Your task to perform on an android device: toggle data saver in the chrome app Image 0: 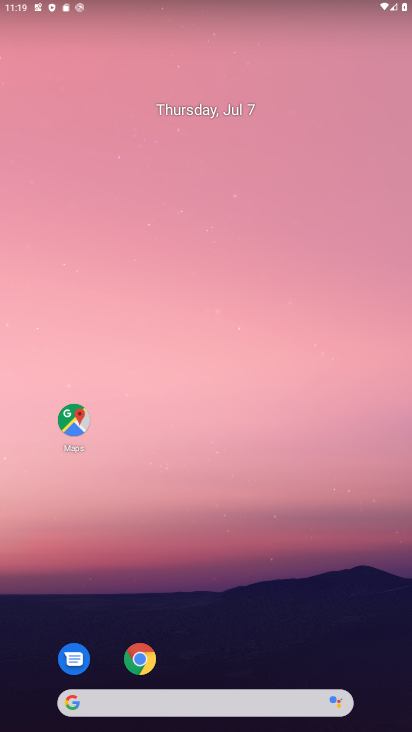
Step 0: click (124, 653)
Your task to perform on an android device: toggle data saver in the chrome app Image 1: 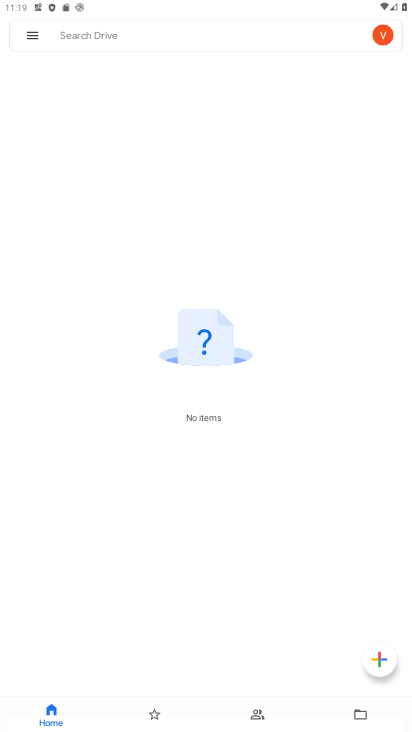
Step 1: press home button
Your task to perform on an android device: toggle data saver in the chrome app Image 2: 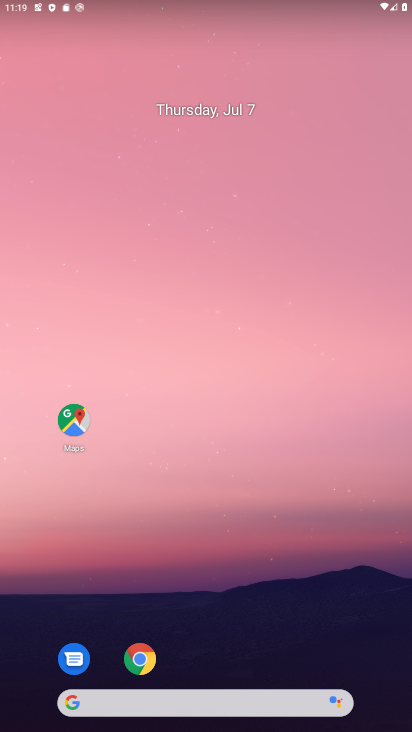
Step 2: click (145, 655)
Your task to perform on an android device: toggle data saver in the chrome app Image 3: 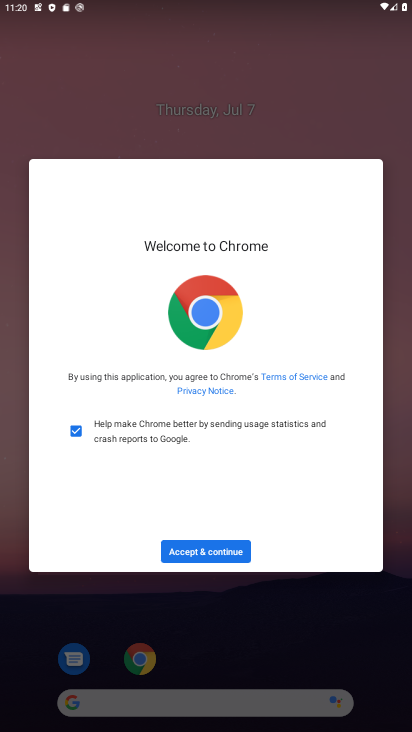
Step 3: click (173, 560)
Your task to perform on an android device: toggle data saver in the chrome app Image 4: 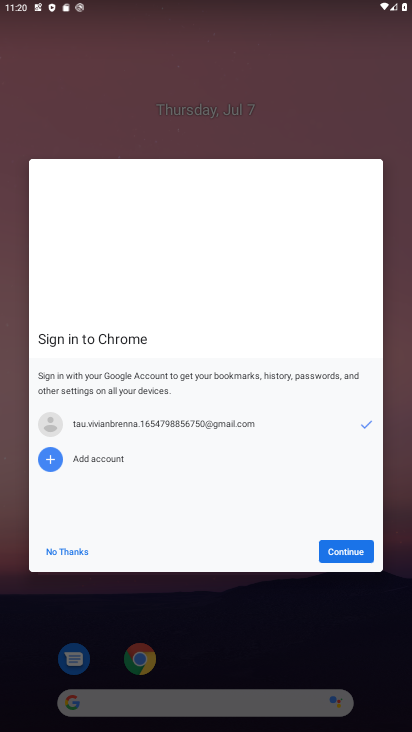
Step 4: click (358, 552)
Your task to perform on an android device: toggle data saver in the chrome app Image 5: 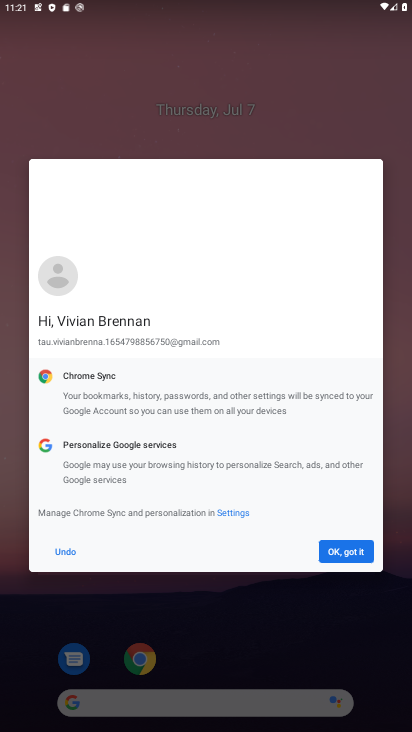
Step 5: click (342, 556)
Your task to perform on an android device: toggle data saver in the chrome app Image 6: 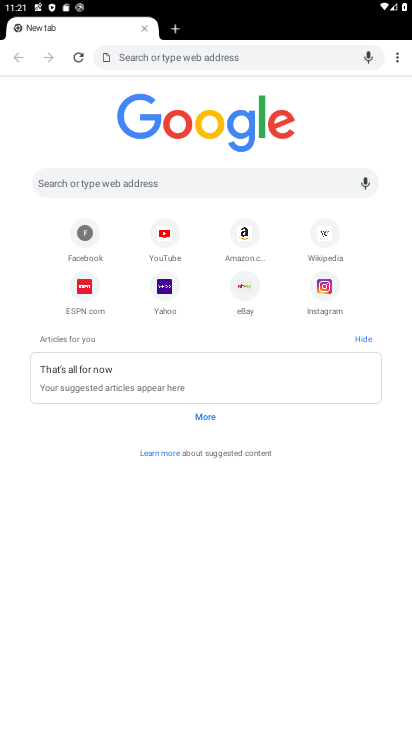
Step 6: click (403, 64)
Your task to perform on an android device: toggle data saver in the chrome app Image 7: 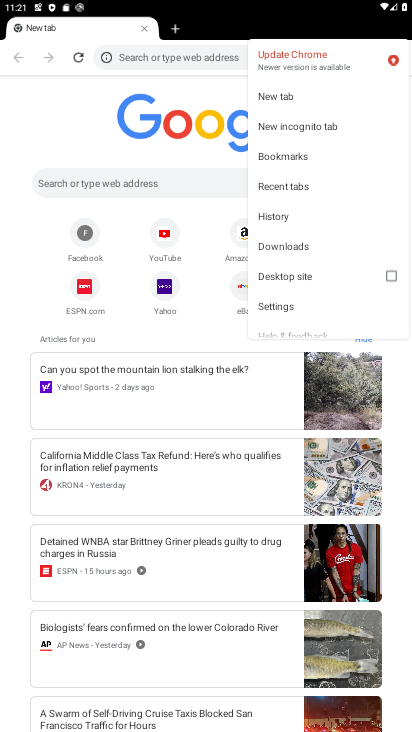
Step 7: click (287, 304)
Your task to perform on an android device: toggle data saver in the chrome app Image 8: 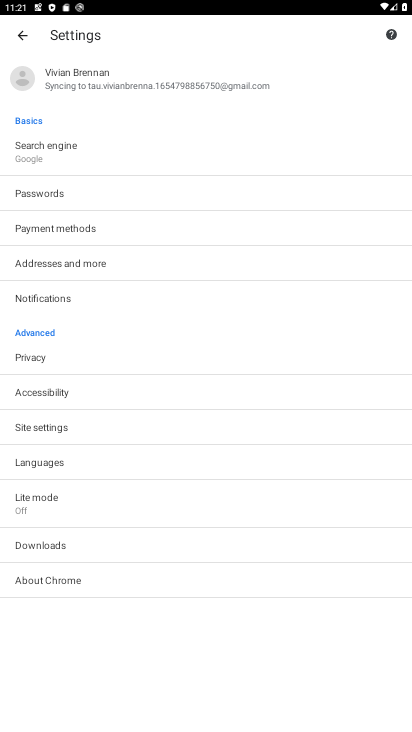
Step 8: click (86, 510)
Your task to perform on an android device: toggle data saver in the chrome app Image 9: 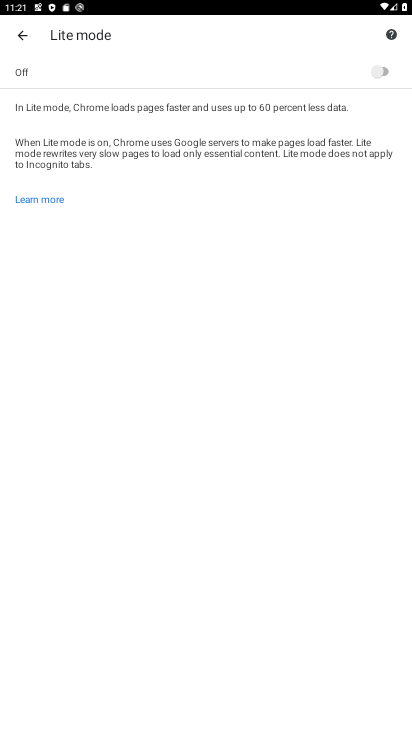
Step 9: click (390, 71)
Your task to perform on an android device: toggle data saver in the chrome app Image 10: 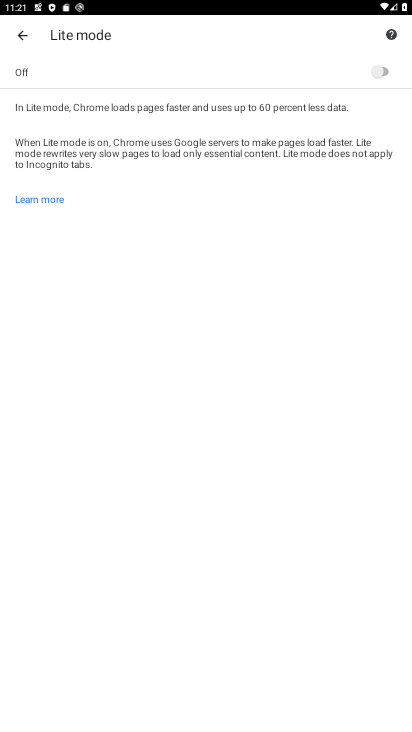
Step 10: click (390, 71)
Your task to perform on an android device: toggle data saver in the chrome app Image 11: 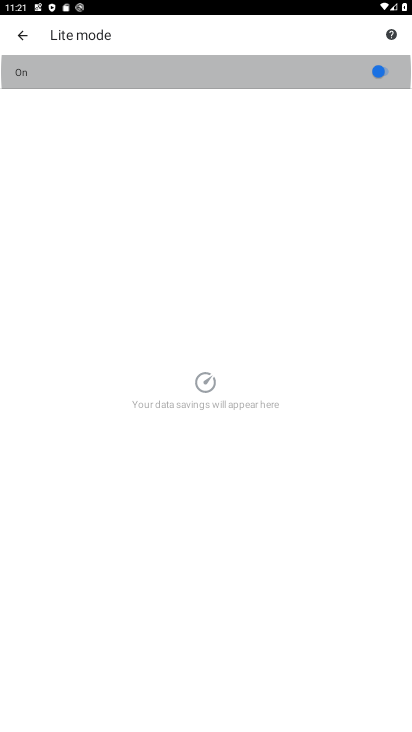
Step 11: click (390, 71)
Your task to perform on an android device: toggle data saver in the chrome app Image 12: 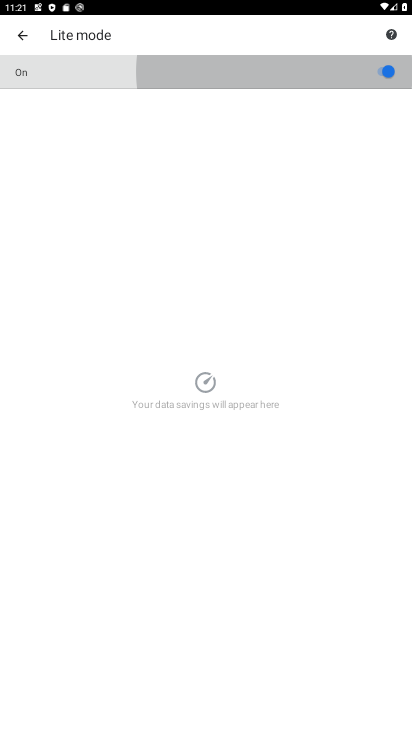
Step 12: click (390, 71)
Your task to perform on an android device: toggle data saver in the chrome app Image 13: 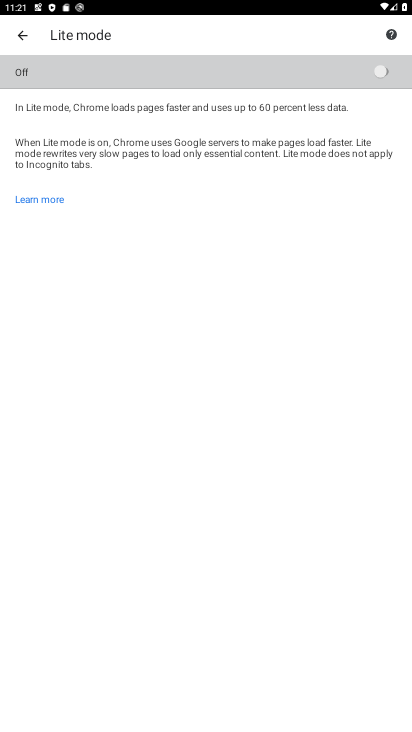
Step 13: click (390, 71)
Your task to perform on an android device: toggle data saver in the chrome app Image 14: 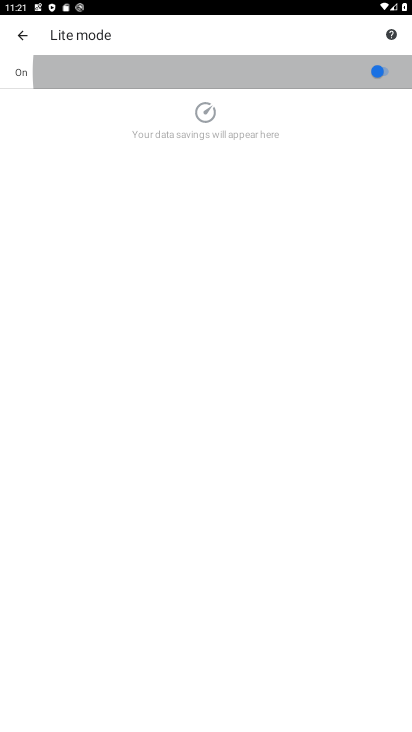
Step 14: click (390, 71)
Your task to perform on an android device: toggle data saver in the chrome app Image 15: 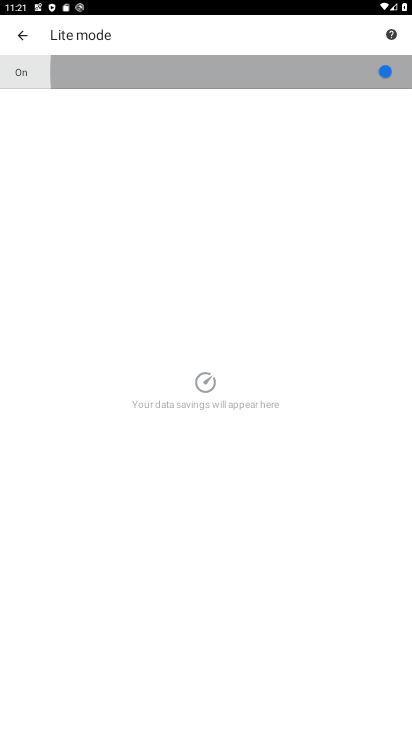
Step 15: click (390, 71)
Your task to perform on an android device: toggle data saver in the chrome app Image 16: 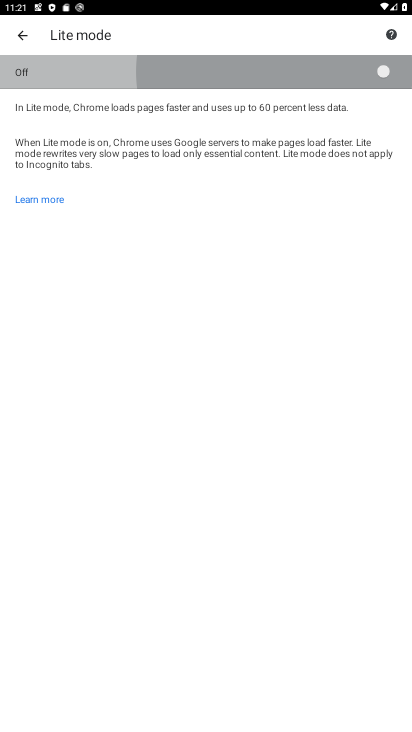
Step 16: click (390, 71)
Your task to perform on an android device: toggle data saver in the chrome app Image 17: 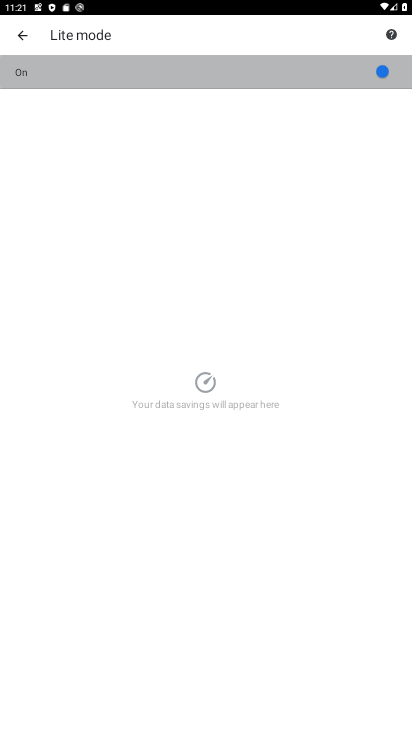
Step 17: click (390, 71)
Your task to perform on an android device: toggle data saver in the chrome app Image 18: 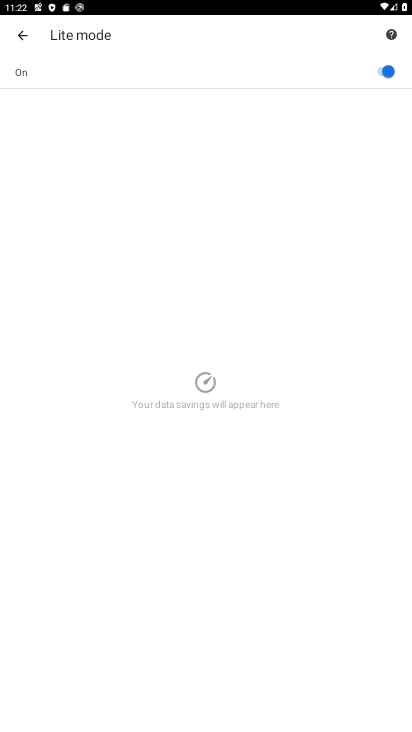
Step 18: task complete